Your task to perform on an android device: change timer sound Image 0: 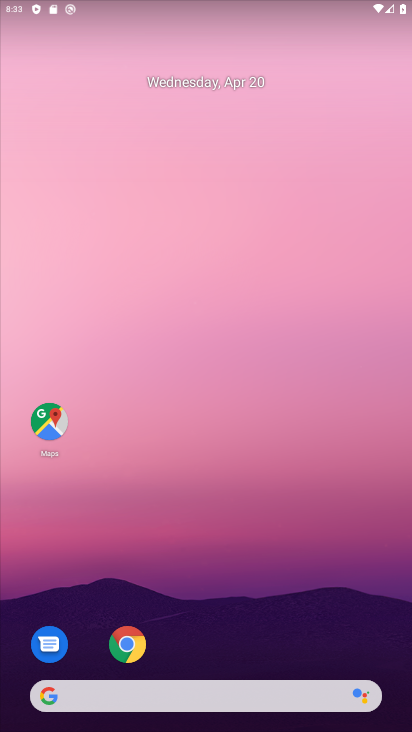
Step 0: drag from (248, 679) to (326, 332)
Your task to perform on an android device: change timer sound Image 1: 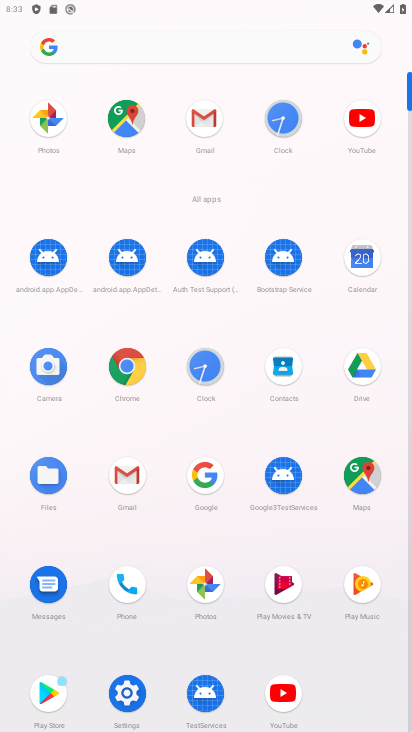
Step 1: click (285, 113)
Your task to perform on an android device: change timer sound Image 2: 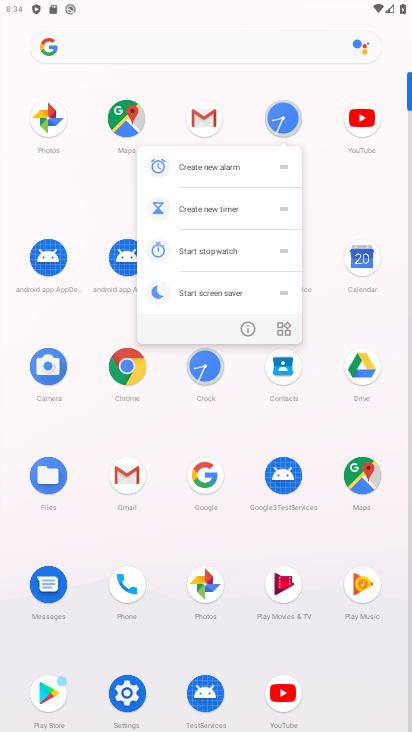
Step 2: click (288, 119)
Your task to perform on an android device: change timer sound Image 3: 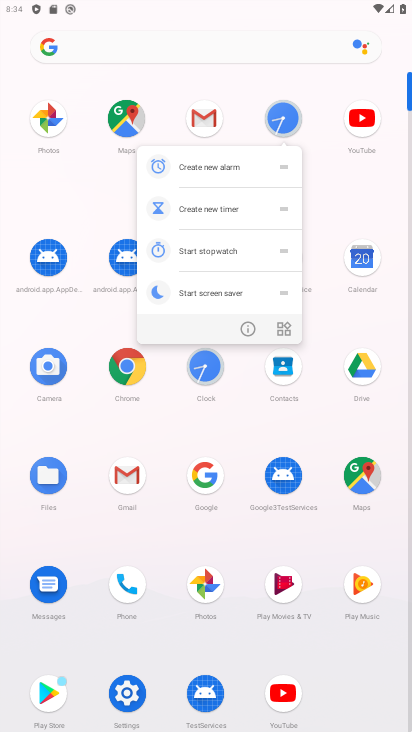
Step 3: click (275, 116)
Your task to perform on an android device: change timer sound Image 4: 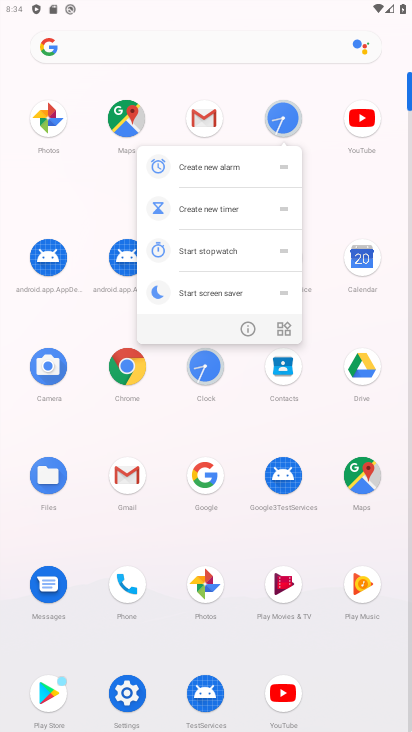
Step 4: click (284, 125)
Your task to perform on an android device: change timer sound Image 5: 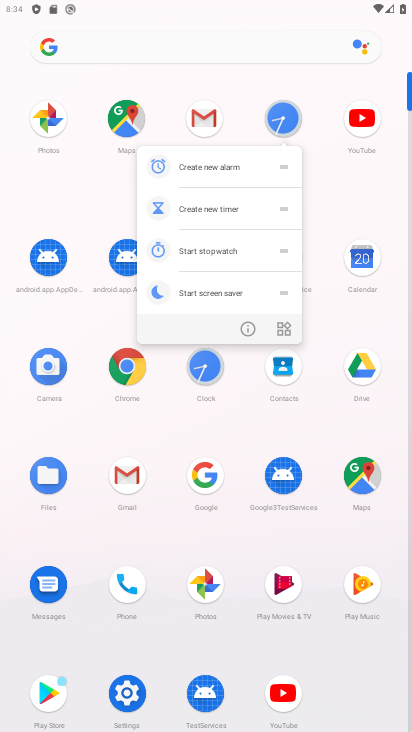
Step 5: click (284, 119)
Your task to perform on an android device: change timer sound Image 6: 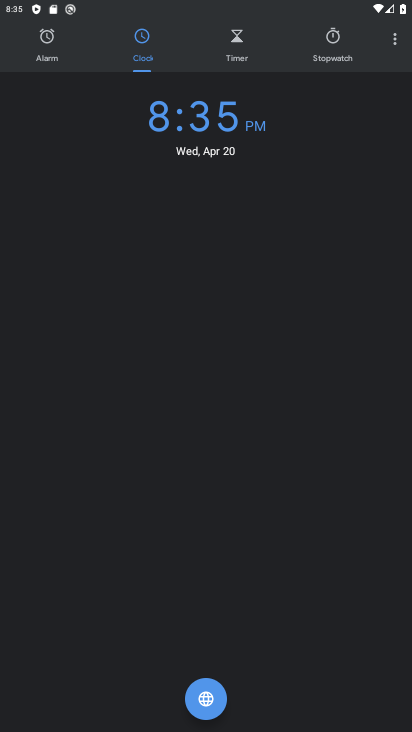
Step 6: click (399, 38)
Your task to perform on an android device: change timer sound Image 7: 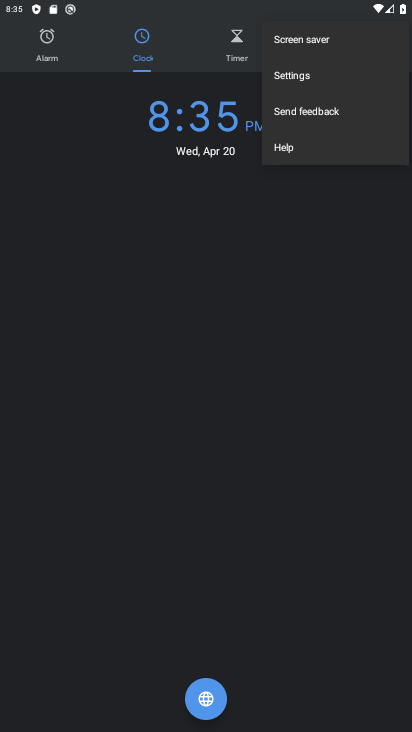
Step 7: click (310, 75)
Your task to perform on an android device: change timer sound Image 8: 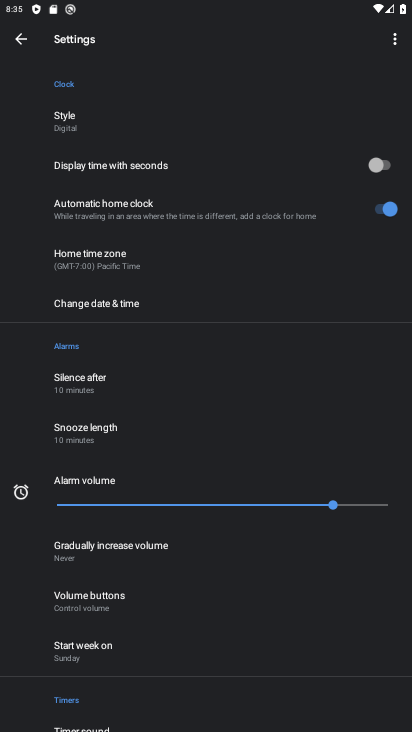
Step 8: drag from (103, 690) to (130, 379)
Your task to perform on an android device: change timer sound Image 9: 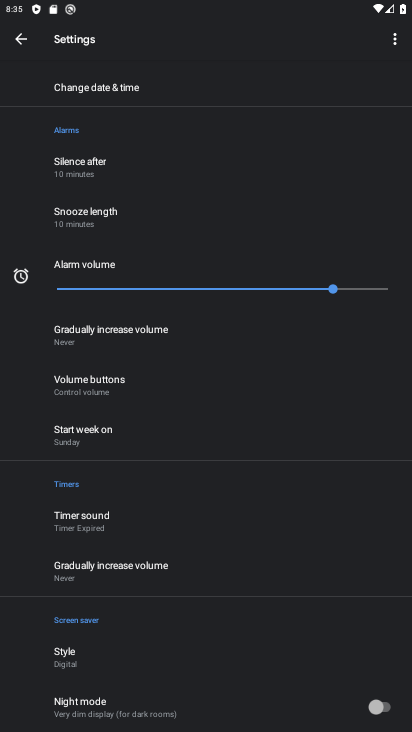
Step 9: click (109, 533)
Your task to perform on an android device: change timer sound Image 10: 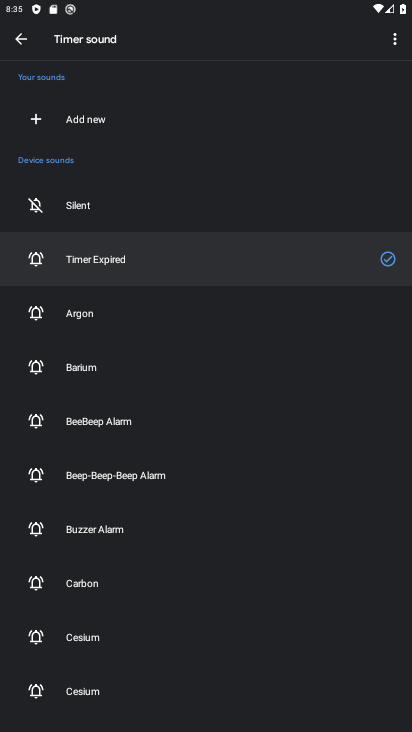
Step 10: click (100, 320)
Your task to perform on an android device: change timer sound Image 11: 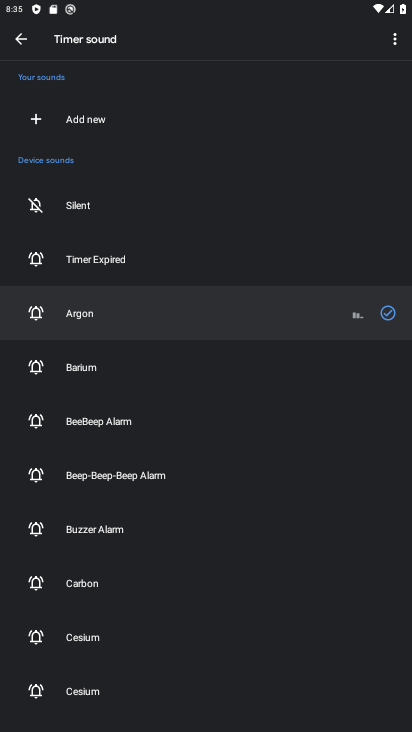
Step 11: task complete